Your task to perform on an android device: turn on notifications settings in the gmail app Image 0: 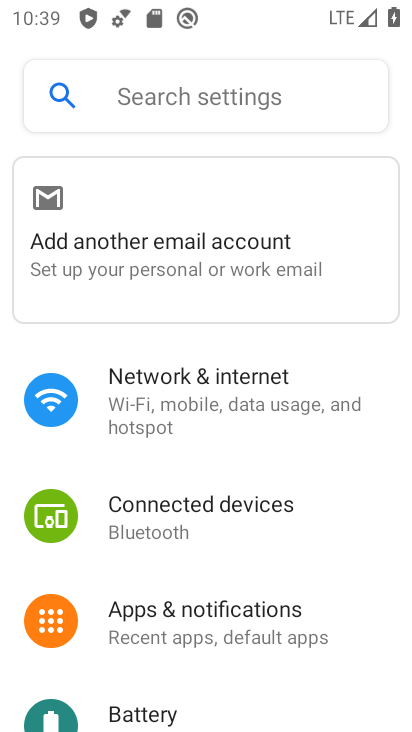
Step 0: press home button
Your task to perform on an android device: turn on notifications settings in the gmail app Image 1: 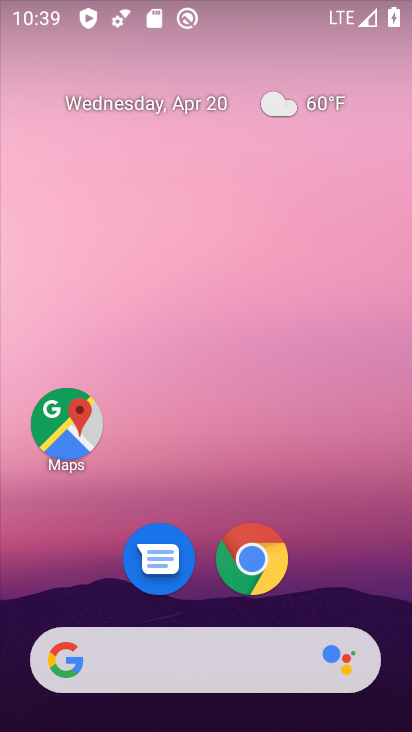
Step 1: drag from (204, 722) to (204, 120)
Your task to perform on an android device: turn on notifications settings in the gmail app Image 2: 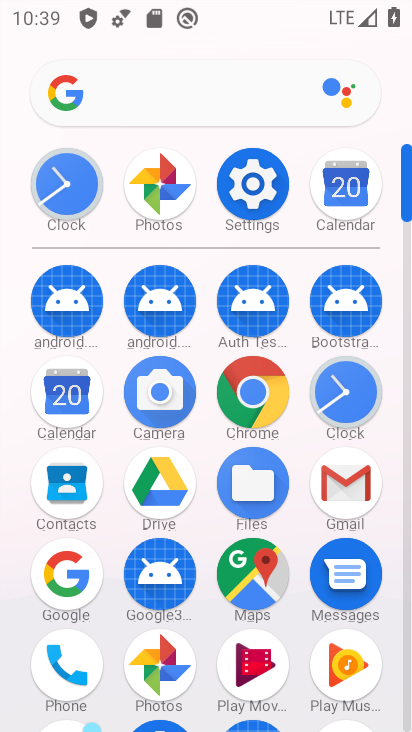
Step 2: click (342, 468)
Your task to perform on an android device: turn on notifications settings in the gmail app Image 3: 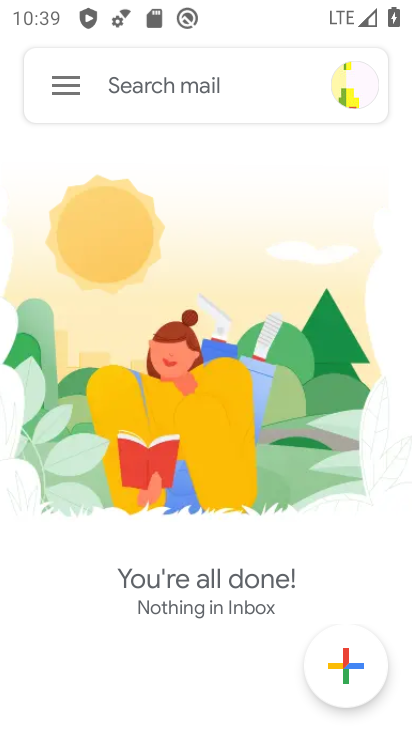
Step 3: click (63, 85)
Your task to perform on an android device: turn on notifications settings in the gmail app Image 4: 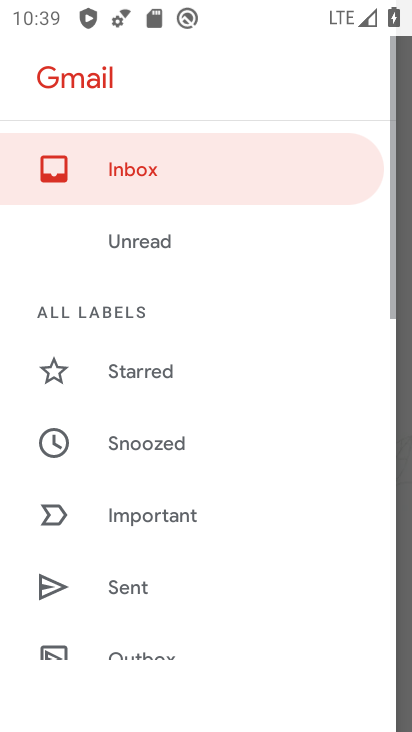
Step 4: drag from (125, 634) to (161, 187)
Your task to perform on an android device: turn on notifications settings in the gmail app Image 5: 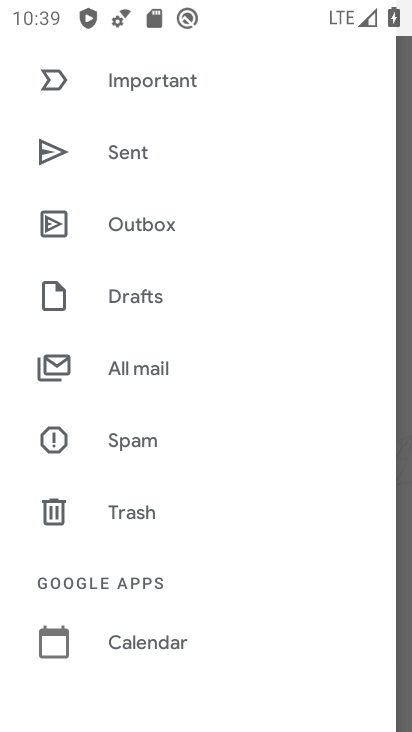
Step 5: drag from (154, 622) to (169, 270)
Your task to perform on an android device: turn on notifications settings in the gmail app Image 6: 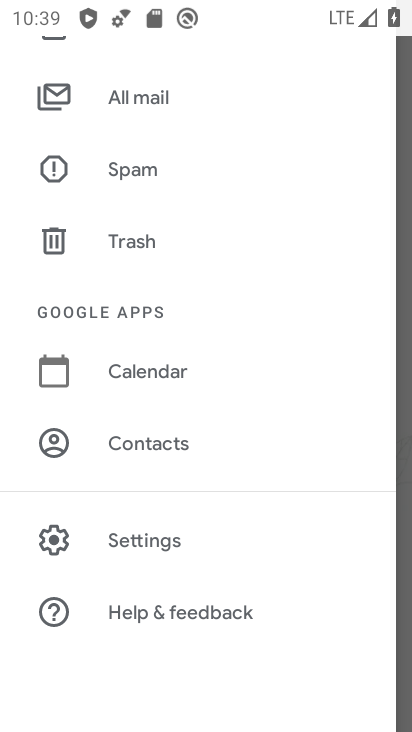
Step 6: click (142, 539)
Your task to perform on an android device: turn on notifications settings in the gmail app Image 7: 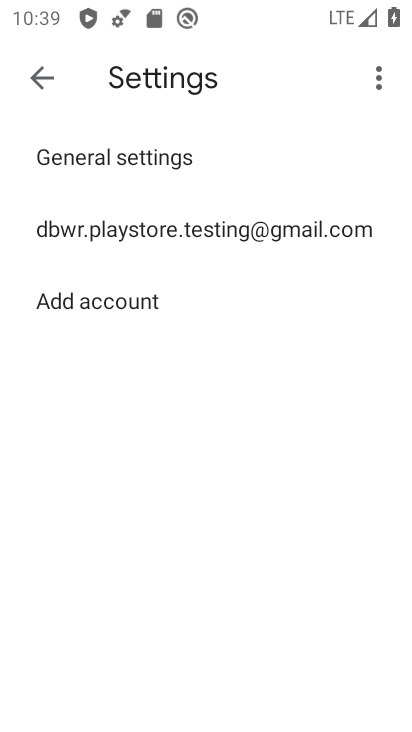
Step 7: click (168, 230)
Your task to perform on an android device: turn on notifications settings in the gmail app Image 8: 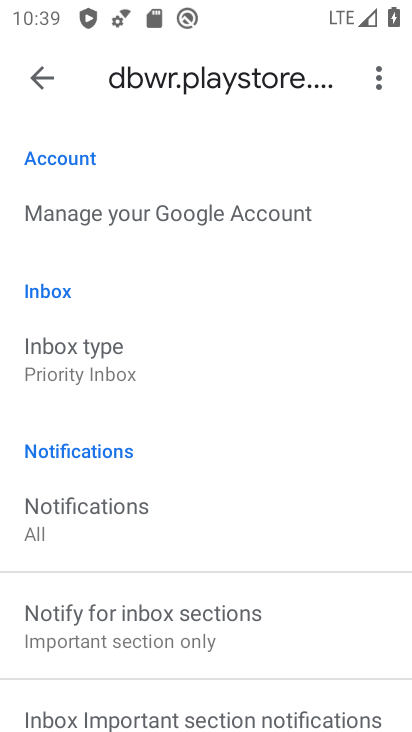
Step 8: drag from (153, 675) to (153, 490)
Your task to perform on an android device: turn on notifications settings in the gmail app Image 9: 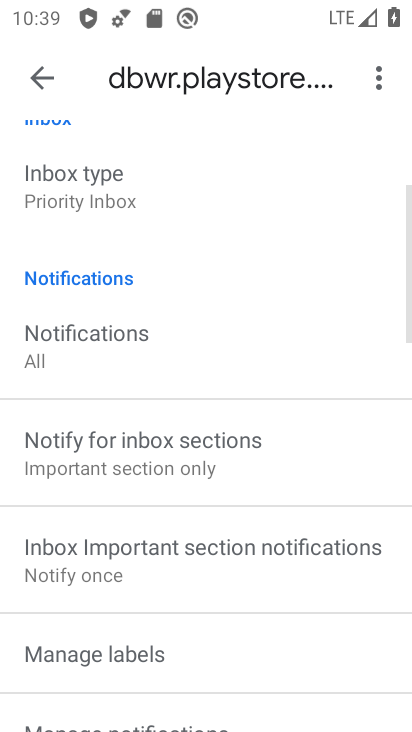
Step 9: click (88, 338)
Your task to perform on an android device: turn on notifications settings in the gmail app Image 10: 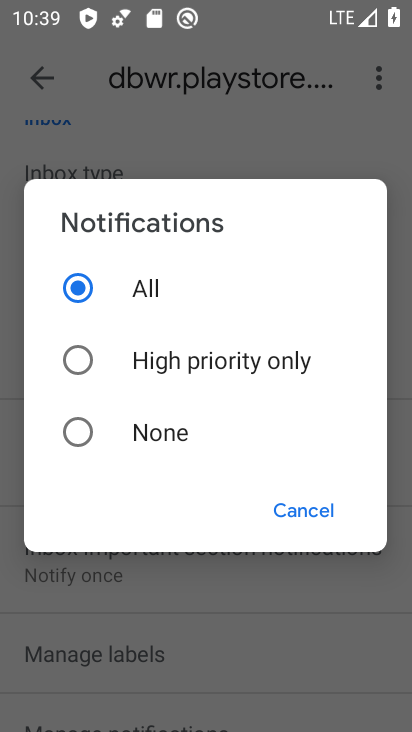
Step 10: click (279, 511)
Your task to perform on an android device: turn on notifications settings in the gmail app Image 11: 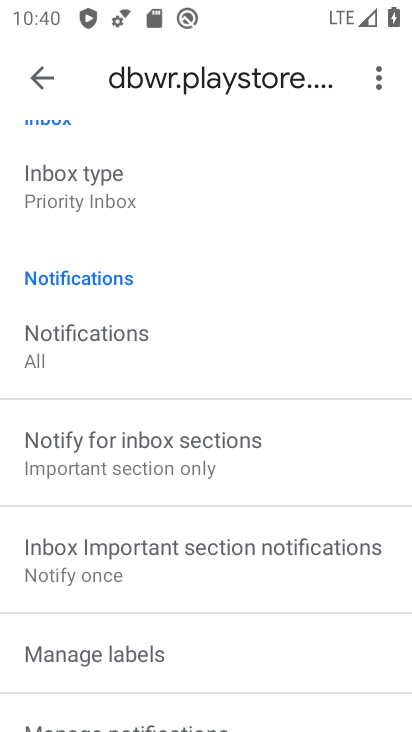
Step 11: task complete